Your task to perform on an android device: Open notification settings Image 0: 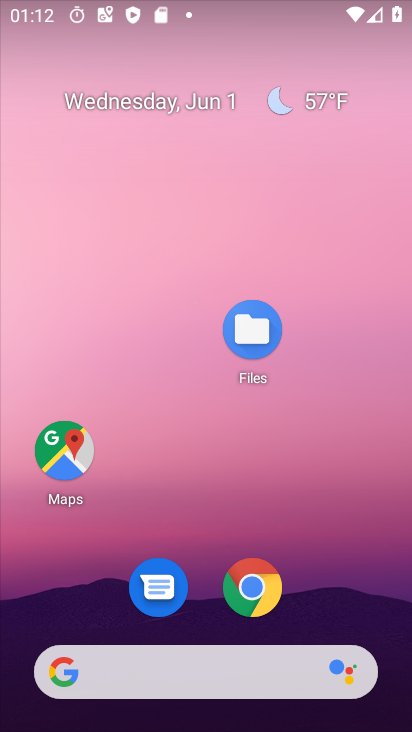
Step 0: drag from (331, 567) to (299, 66)
Your task to perform on an android device: Open notification settings Image 1: 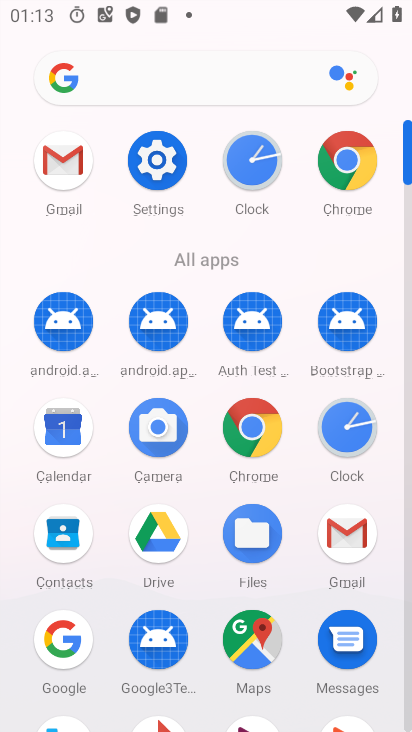
Step 1: click (178, 173)
Your task to perform on an android device: Open notification settings Image 2: 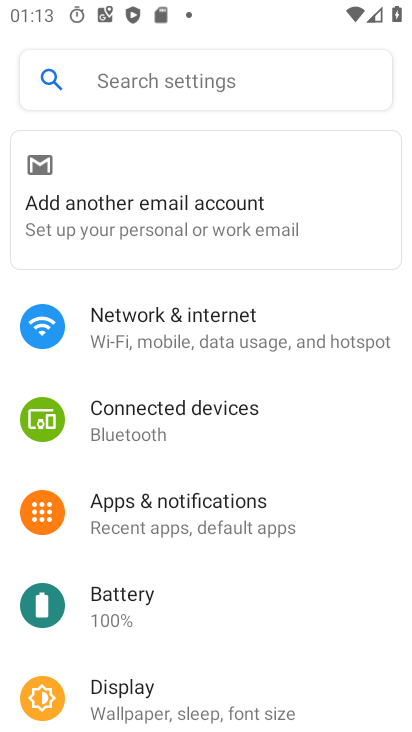
Step 2: click (196, 134)
Your task to perform on an android device: Open notification settings Image 3: 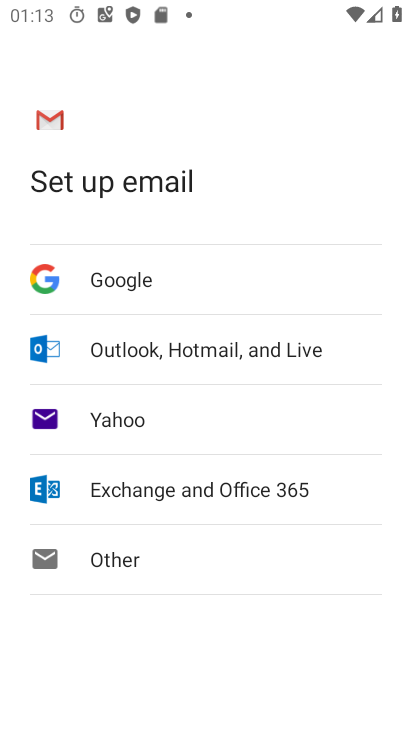
Step 3: press home button
Your task to perform on an android device: Open notification settings Image 4: 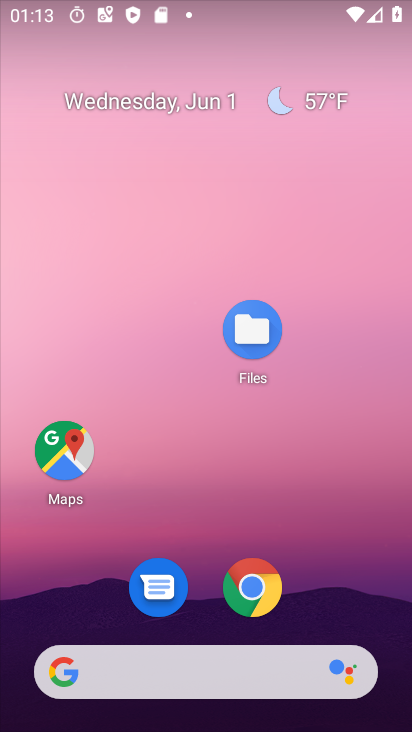
Step 4: drag from (176, 420) to (177, 43)
Your task to perform on an android device: Open notification settings Image 5: 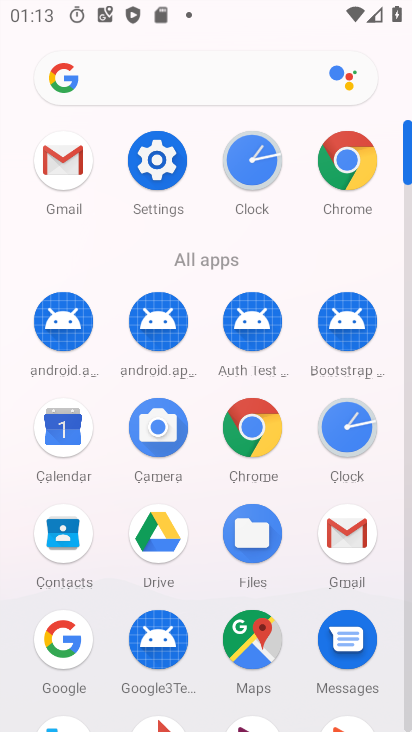
Step 5: click (146, 182)
Your task to perform on an android device: Open notification settings Image 6: 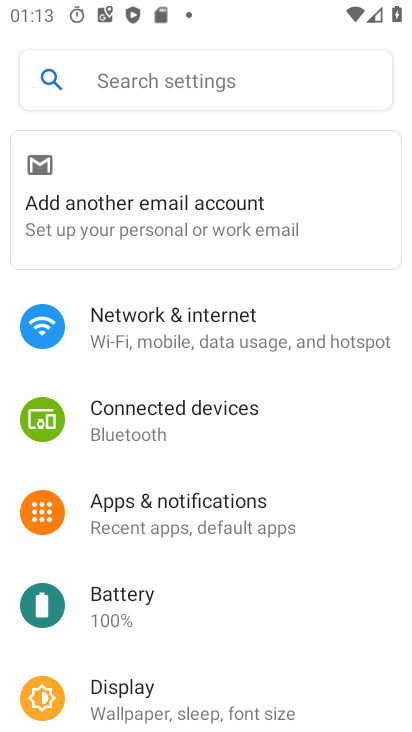
Step 6: click (220, 506)
Your task to perform on an android device: Open notification settings Image 7: 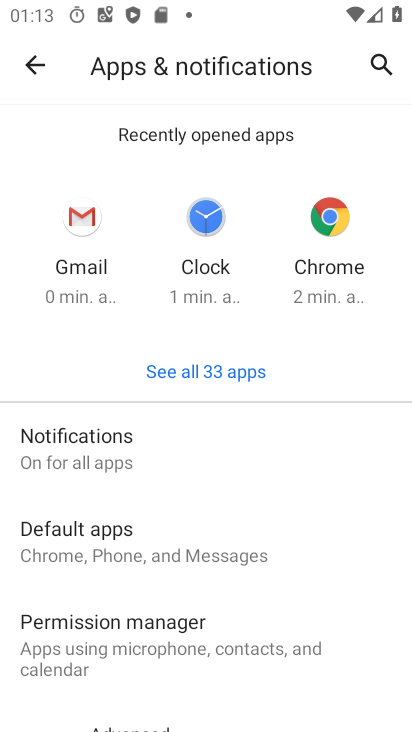
Step 7: click (96, 427)
Your task to perform on an android device: Open notification settings Image 8: 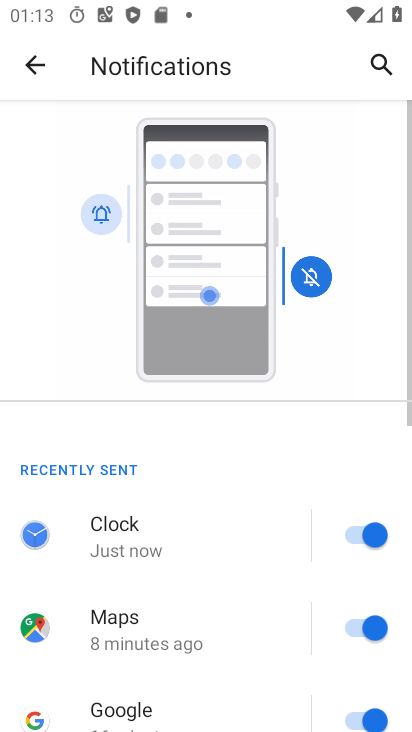
Step 8: task complete